Your task to perform on an android device: Open Google Maps Image 0: 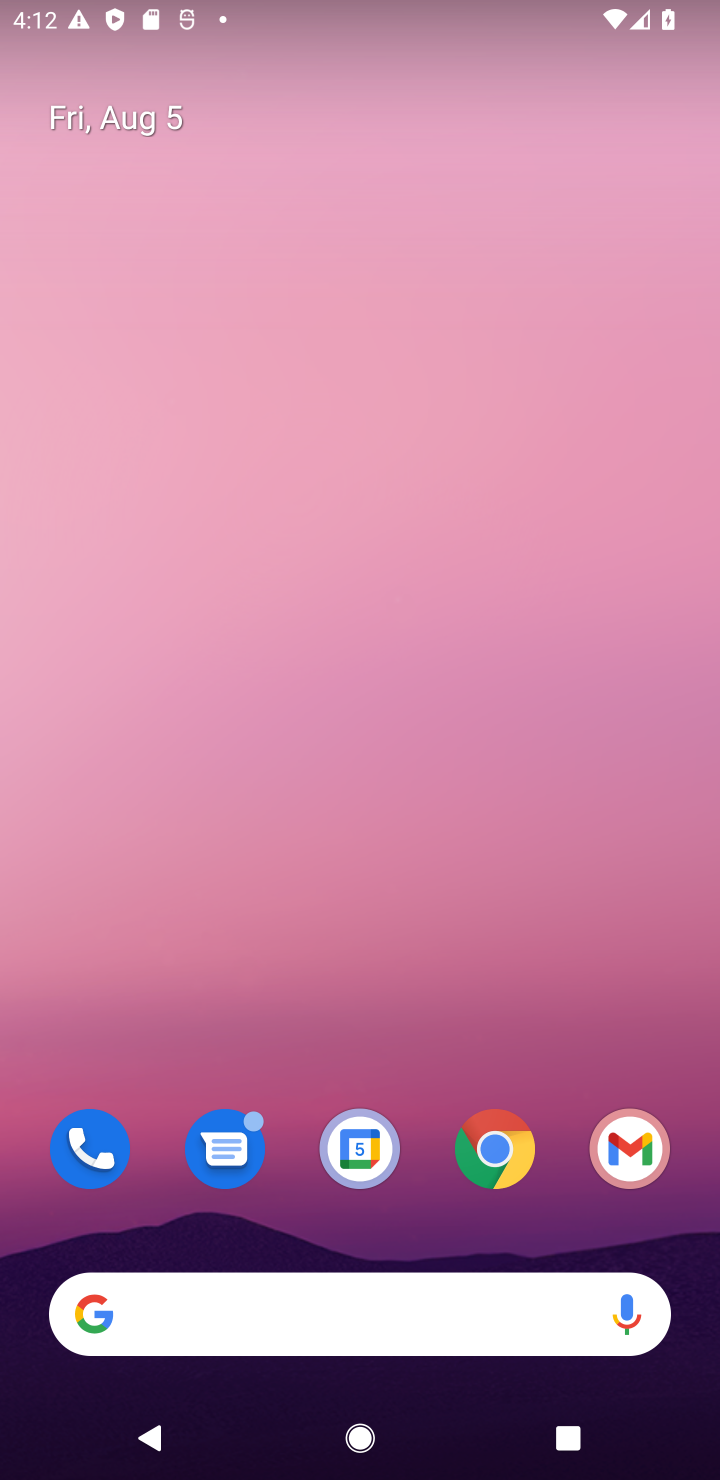
Step 0: drag from (383, 1101) to (412, 225)
Your task to perform on an android device: Open Google Maps Image 1: 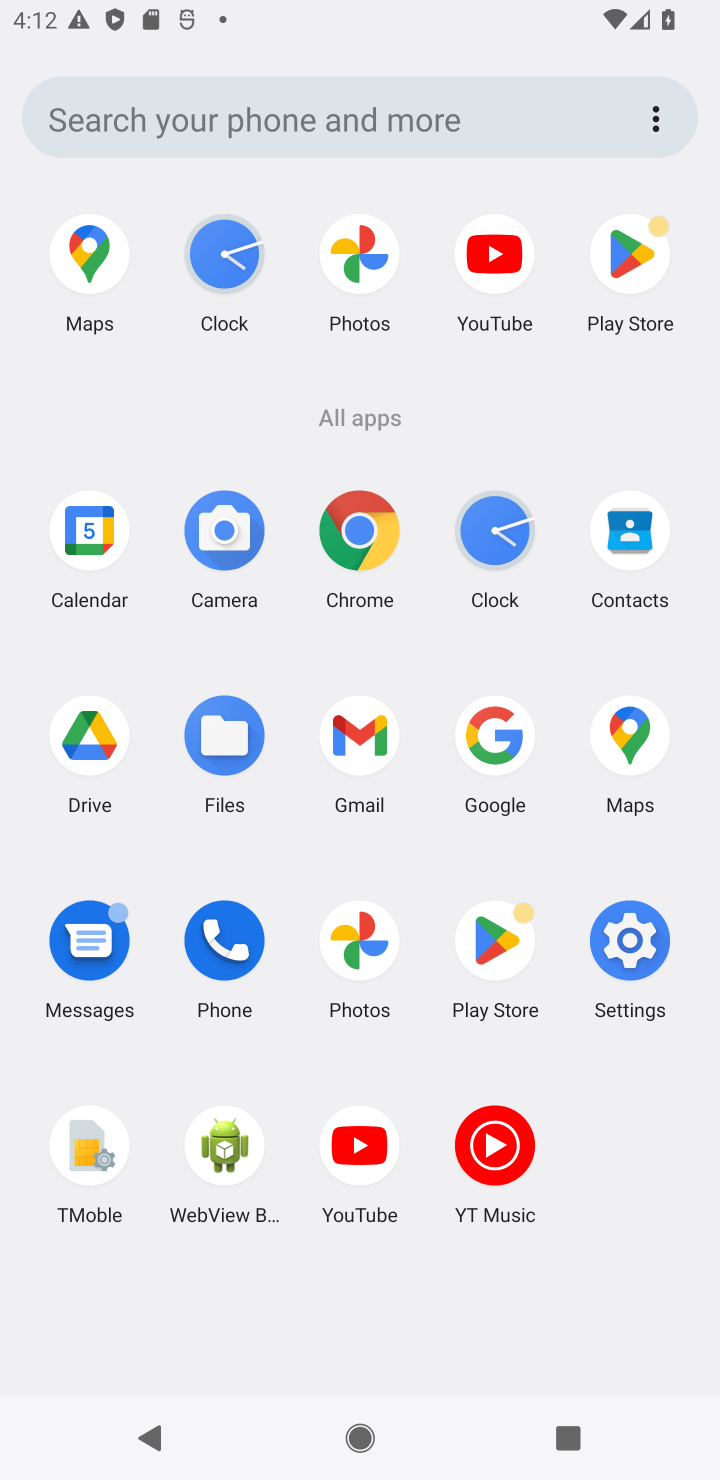
Step 1: click (627, 729)
Your task to perform on an android device: Open Google Maps Image 2: 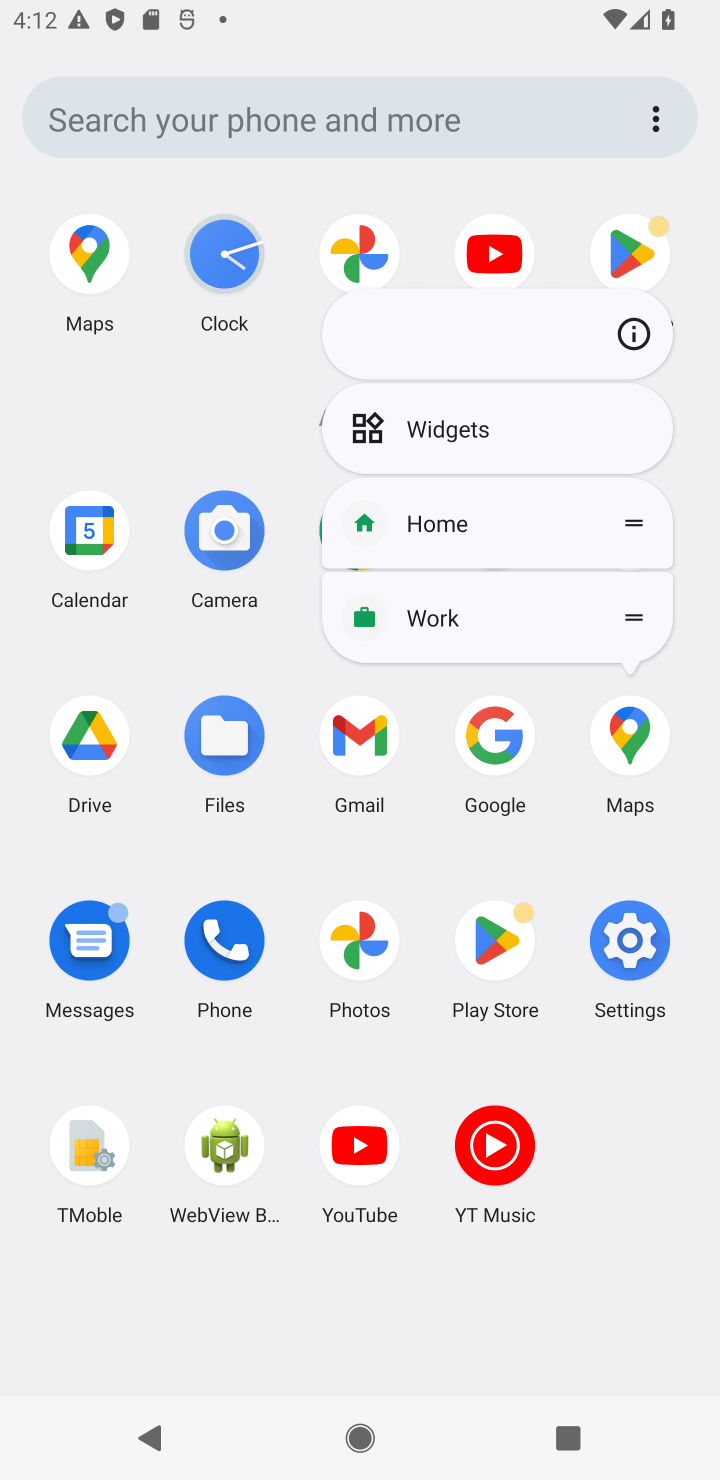
Step 2: click (635, 738)
Your task to perform on an android device: Open Google Maps Image 3: 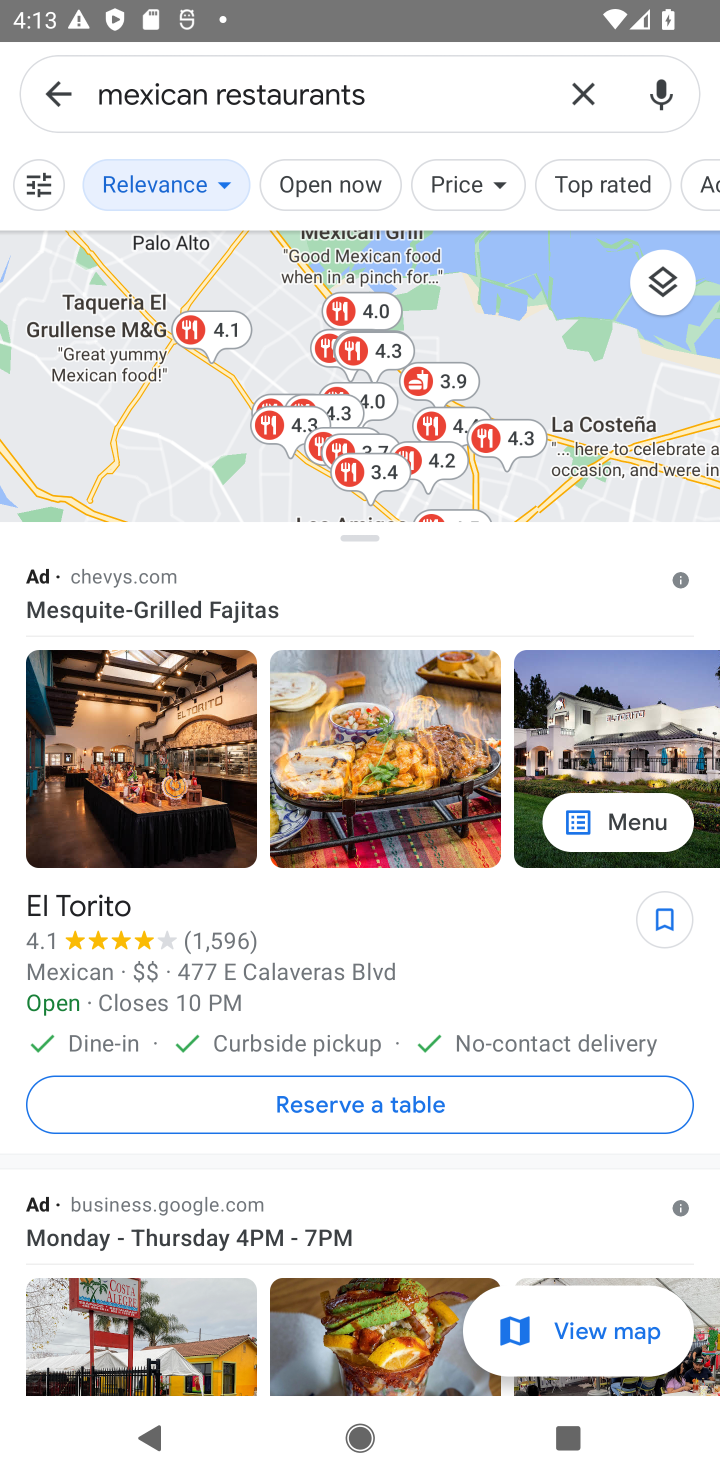
Step 3: task complete